Your task to perform on an android device: Open notification settings Image 0: 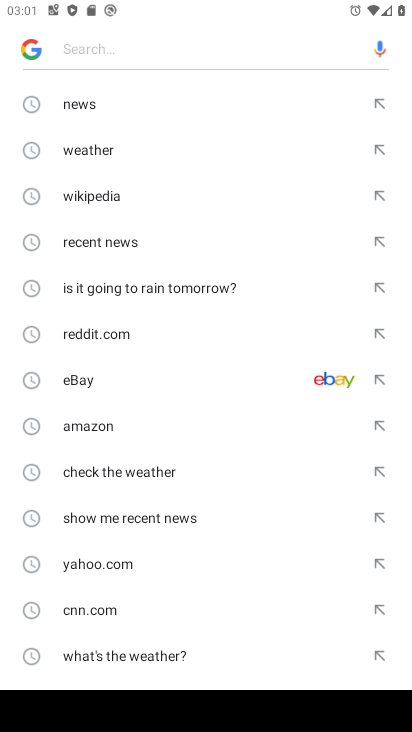
Step 0: press home button
Your task to perform on an android device: Open notification settings Image 1: 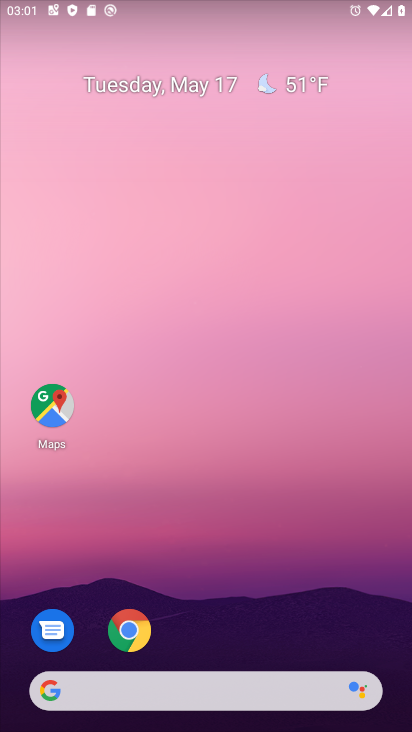
Step 1: drag from (174, 596) to (304, 49)
Your task to perform on an android device: Open notification settings Image 2: 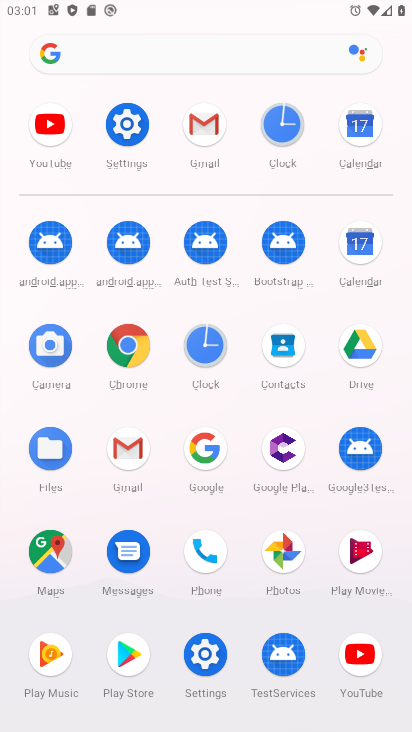
Step 2: click (107, 125)
Your task to perform on an android device: Open notification settings Image 3: 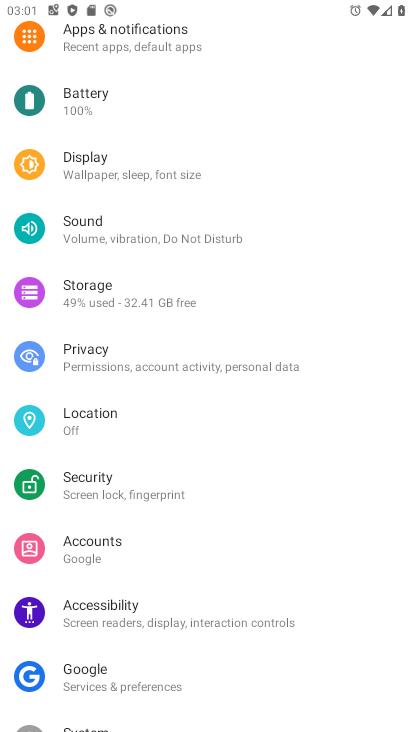
Step 3: click (125, 31)
Your task to perform on an android device: Open notification settings Image 4: 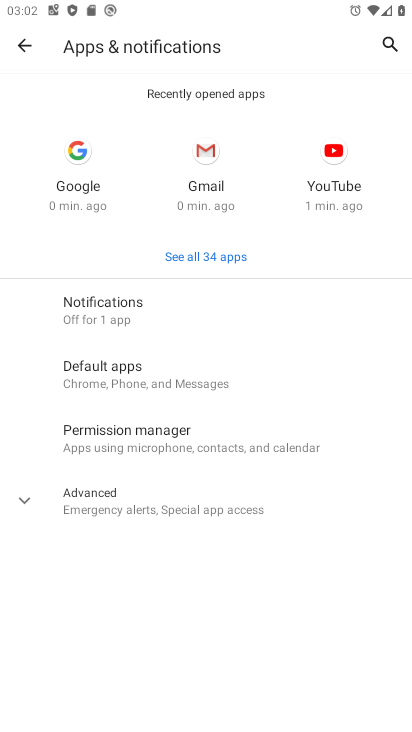
Step 4: task complete